Your task to perform on an android device: see sites visited before in the chrome app Image 0: 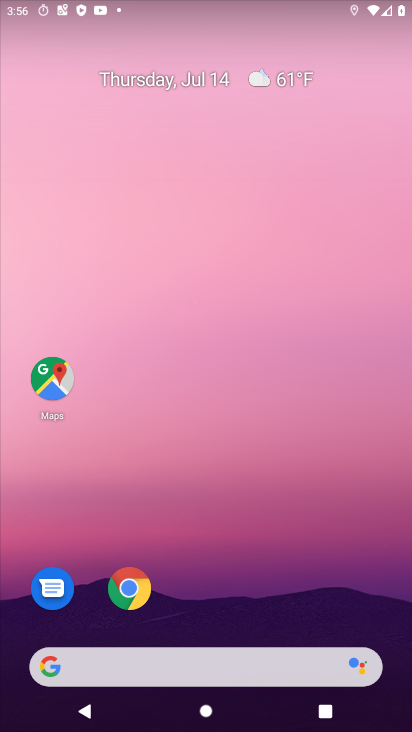
Step 0: click (130, 588)
Your task to perform on an android device: see sites visited before in the chrome app Image 1: 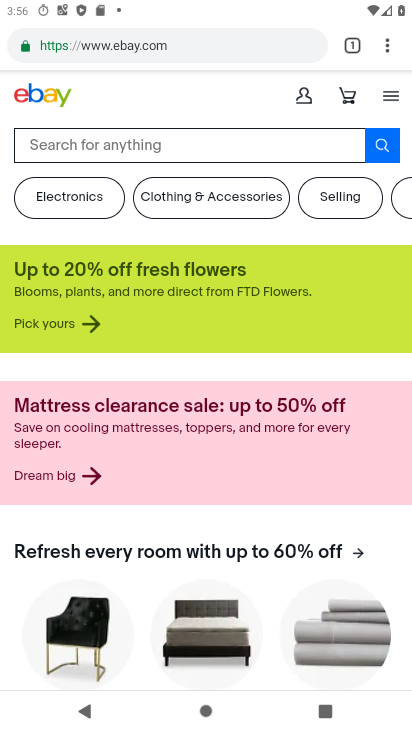
Step 1: click (388, 47)
Your task to perform on an android device: see sites visited before in the chrome app Image 2: 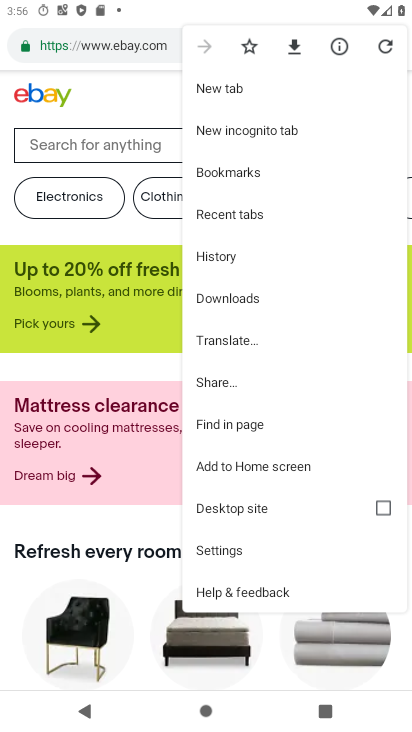
Step 2: click (222, 259)
Your task to perform on an android device: see sites visited before in the chrome app Image 3: 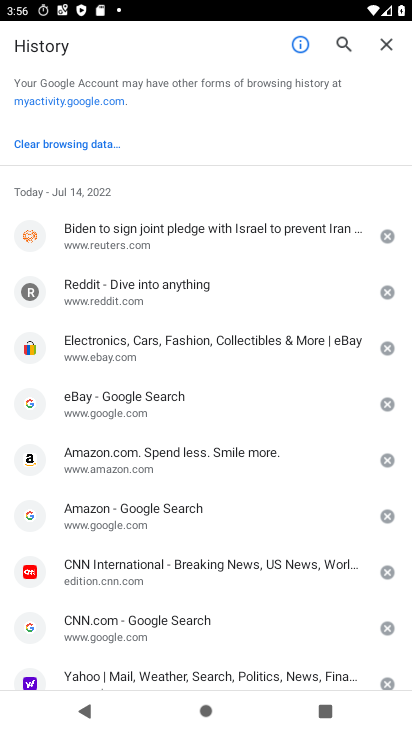
Step 3: task complete